Your task to perform on an android device: Go to notification settings Image 0: 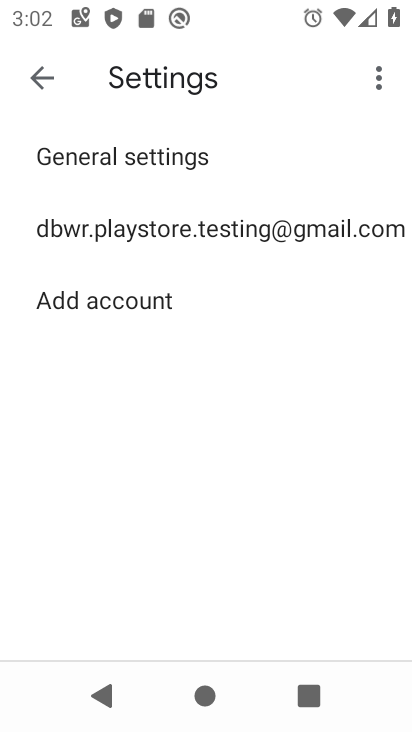
Step 0: press home button
Your task to perform on an android device: Go to notification settings Image 1: 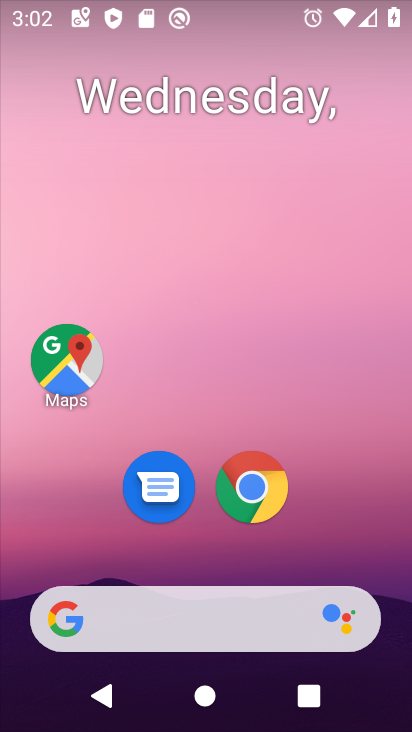
Step 1: drag from (352, 567) to (363, 171)
Your task to perform on an android device: Go to notification settings Image 2: 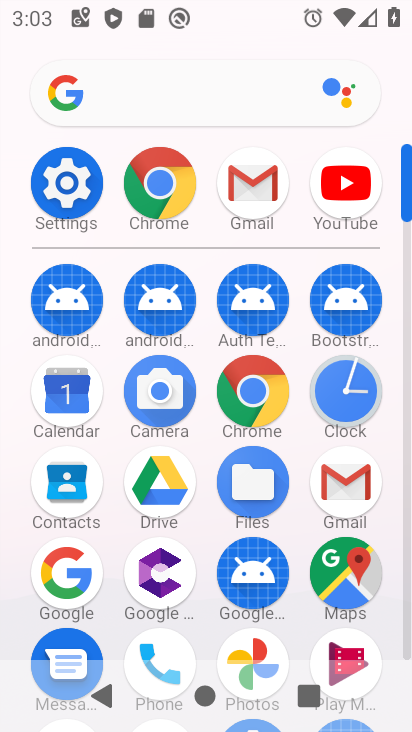
Step 2: click (84, 203)
Your task to perform on an android device: Go to notification settings Image 3: 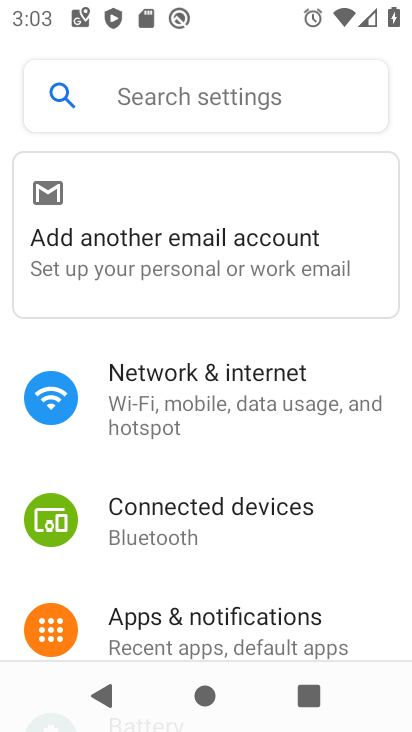
Step 3: drag from (361, 553) to (357, 458)
Your task to perform on an android device: Go to notification settings Image 4: 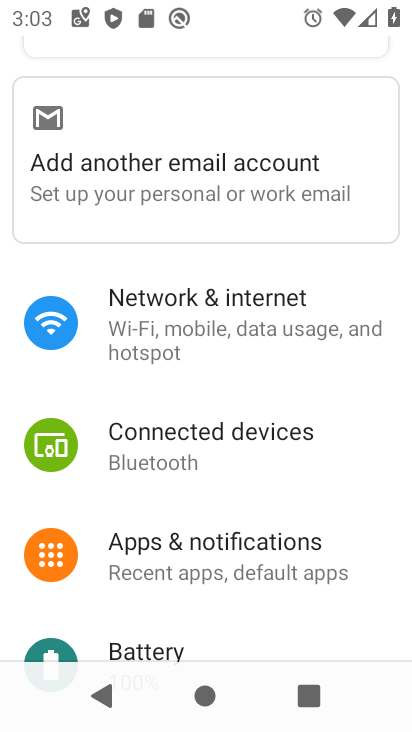
Step 4: drag from (365, 603) to (365, 439)
Your task to perform on an android device: Go to notification settings Image 5: 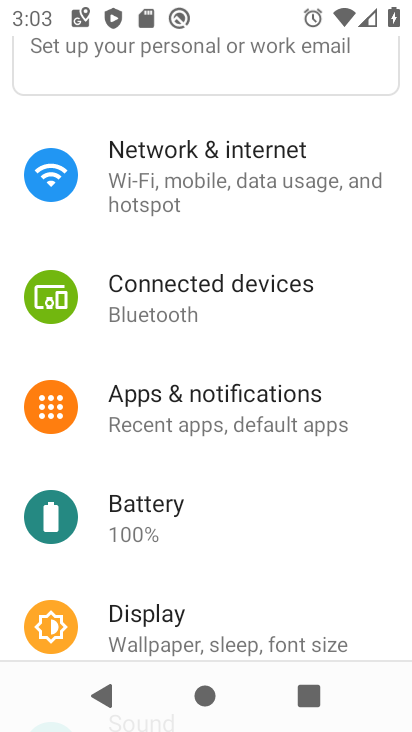
Step 5: click (301, 428)
Your task to perform on an android device: Go to notification settings Image 6: 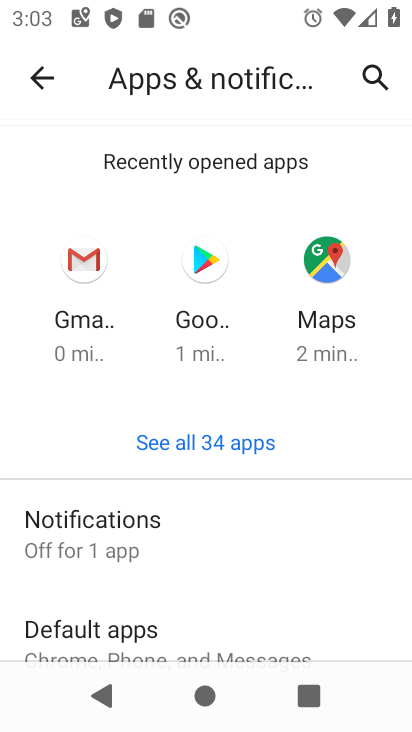
Step 6: click (208, 537)
Your task to perform on an android device: Go to notification settings Image 7: 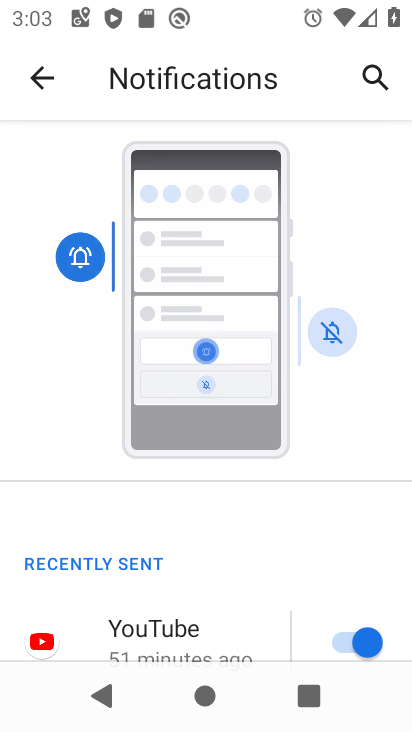
Step 7: task complete